Your task to perform on an android device: open device folders in google photos Image 0: 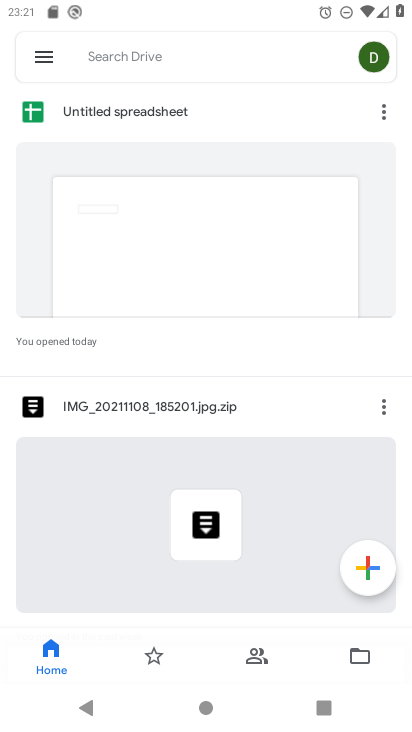
Step 0: press home button
Your task to perform on an android device: open device folders in google photos Image 1: 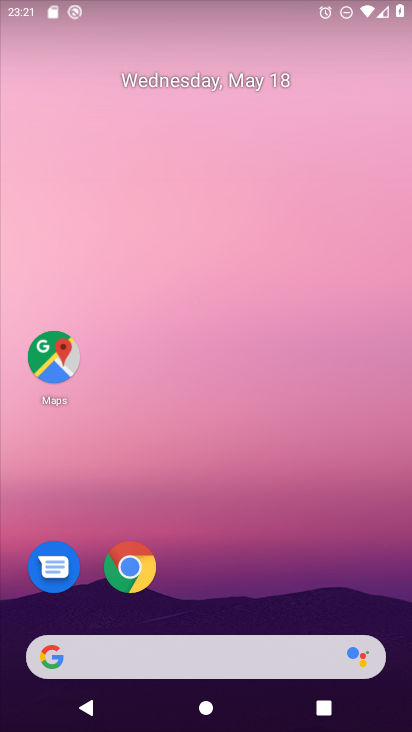
Step 1: drag from (275, 689) to (225, 176)
Your task to perform on an android device: open device folders in google photos Image 2: 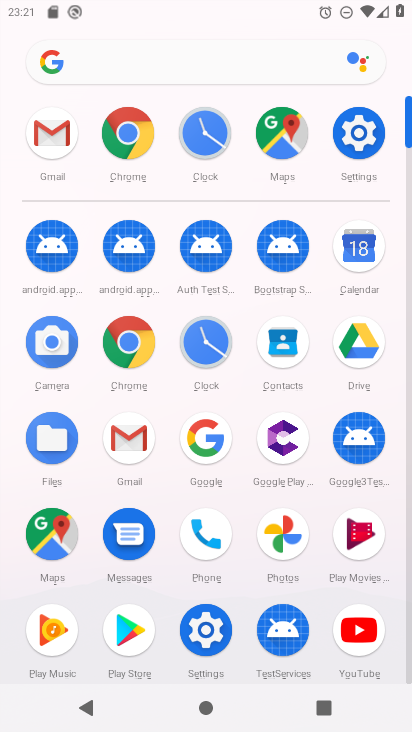
Step 2: click (287, 531)
Your task to perform on an android device: open device folders in google photos Image 3: 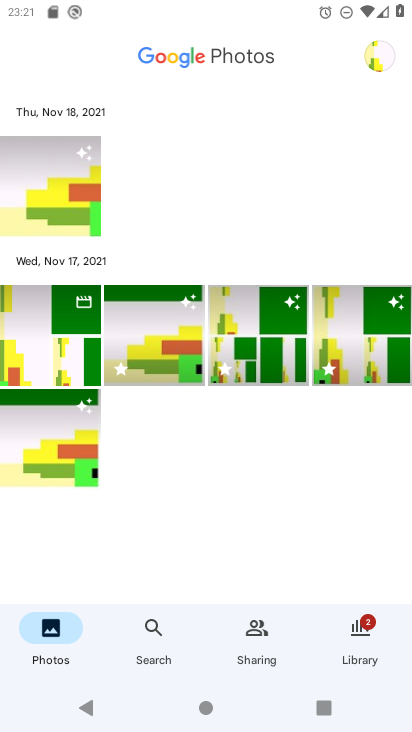
Step 3: click (150, 622)
Your task to perform on an android device: open device folders in google photos Image 4: 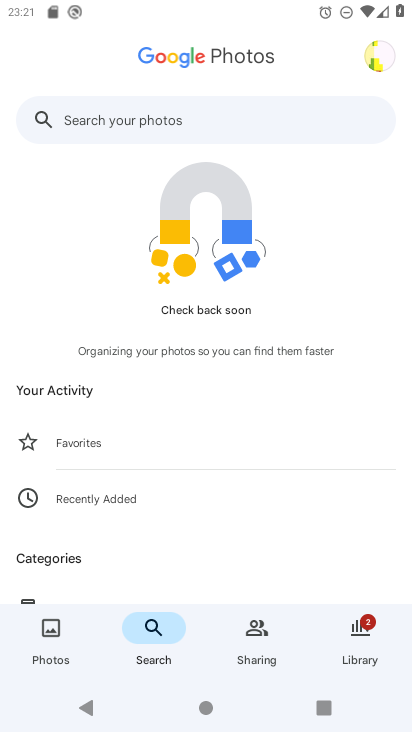
Step 4: click (124, 117)
Your task to perform on an android device: open device folders in google photos Image 5: 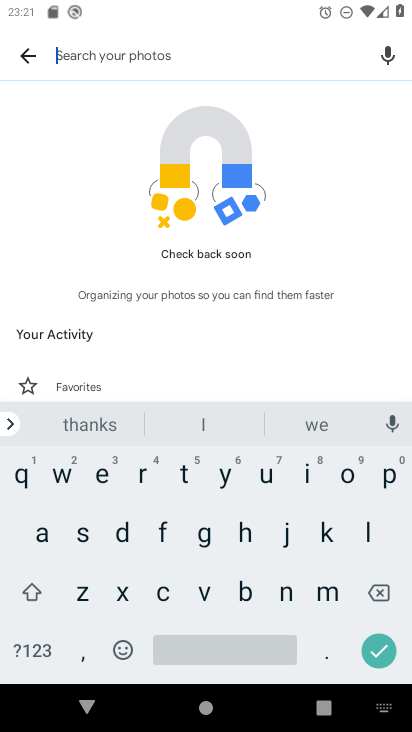
Step 5: click (115, 538)
Your task to perform on an android device: open device folders in google photos Image 6: 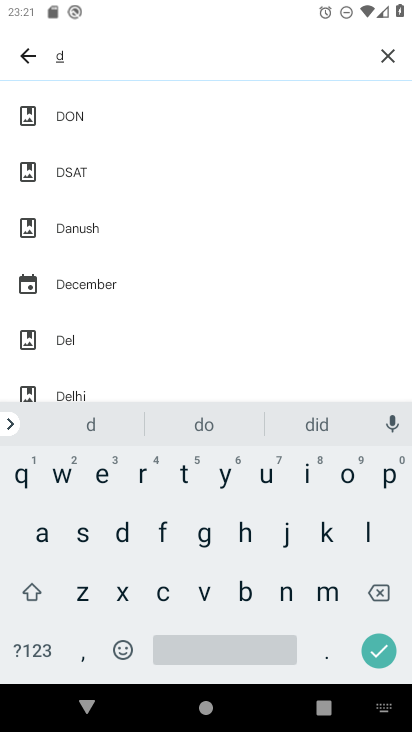
Step 6: click (98, 469)
Your task to perform on an android device: open device folders in google photos Image 7: 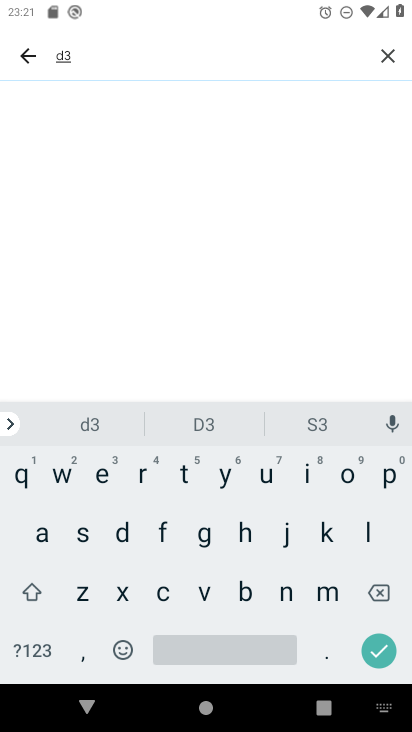
Step 7: click (379, 602)
Your task to perform on an android device: open device folders in google photos Image 8: 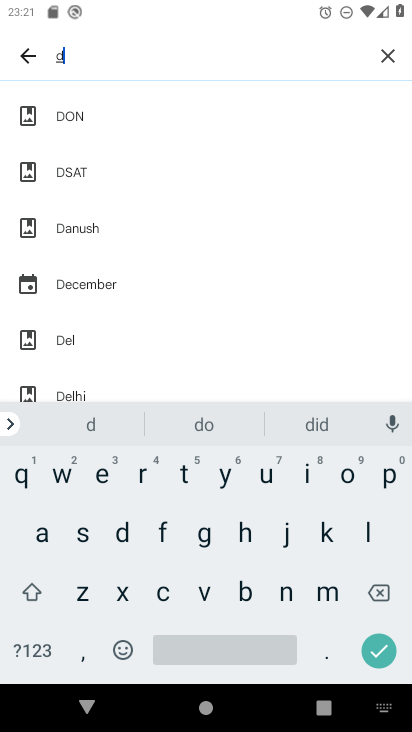
Step 8: click (100, 470)
Your task to perform on an android device: open device folders in google photos Image 9: 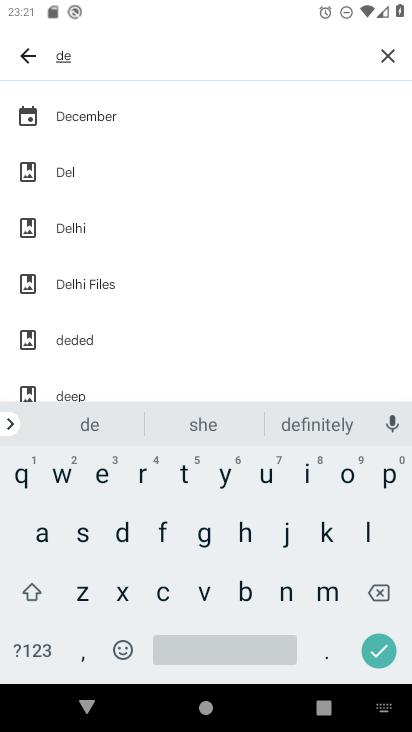
Step 9: click (205, 596)
Your task to perform on an android device: open device folders in google photos Image 10: 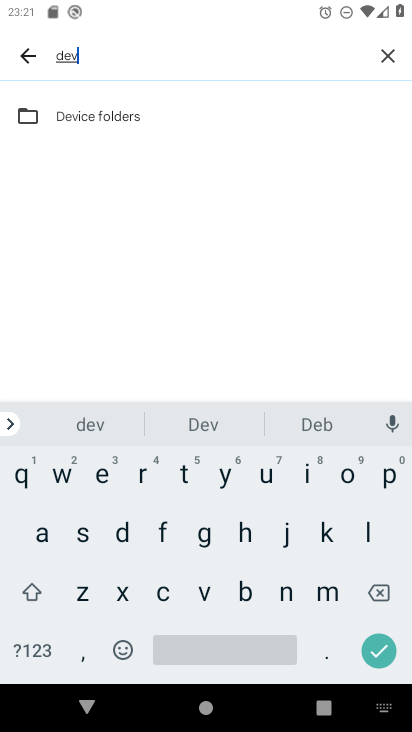
Step 10: click (305, 475)
Your task to perform on an android device: open device folders in google photos Image 11: 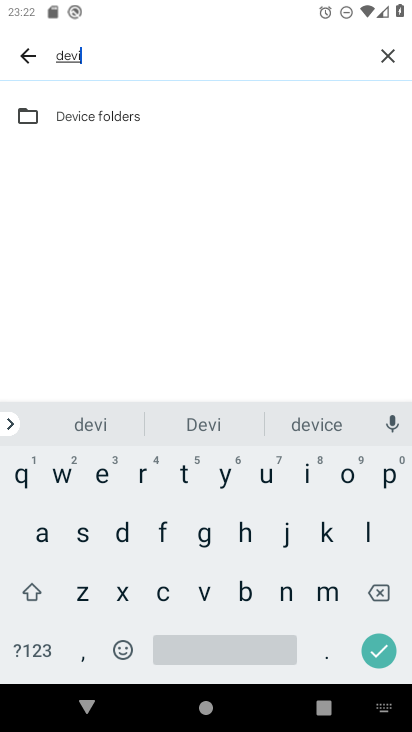
Step 11: click (101, 125)
Your task to perform on an android device: open device folders in google photos Image 12: 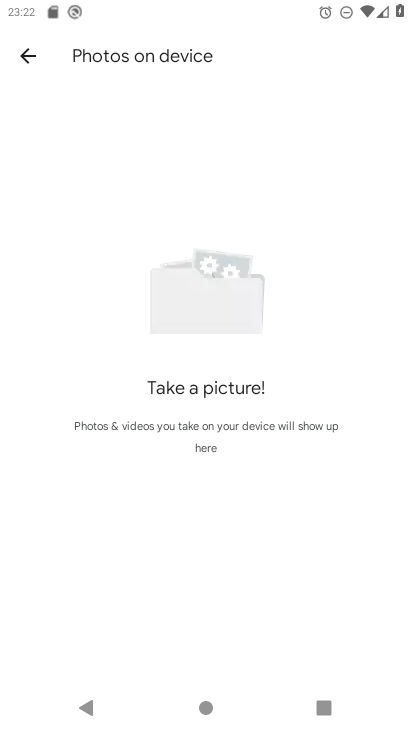
Step 12: task complete